Your task to perform on an android device: manage bookmarks in the chrome app Image 0: 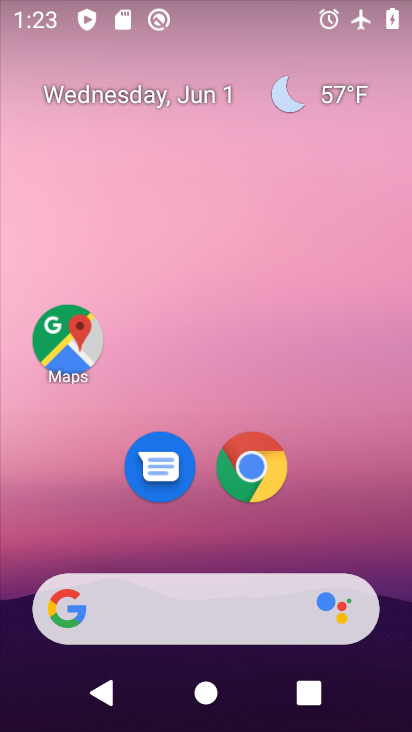
Step 0: drag from (338, 537) to (359, 179)
Your task to perform on an android device: manage bookmarks in the chrome app Image 1: 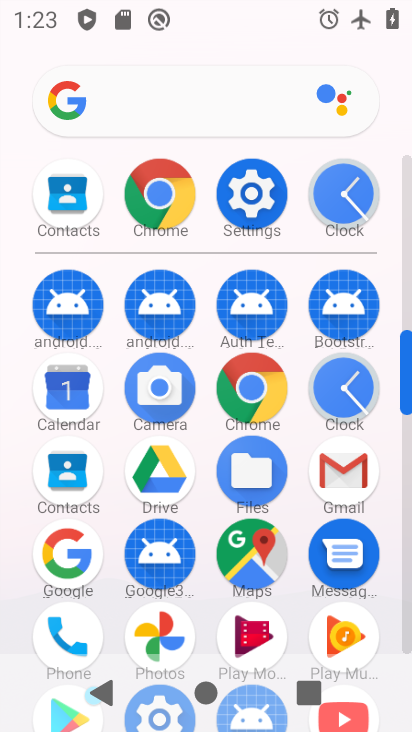
Step 1: click (256, 401)
Your task to perform on an android device: manage bookmarks in the chrome app Image 2: 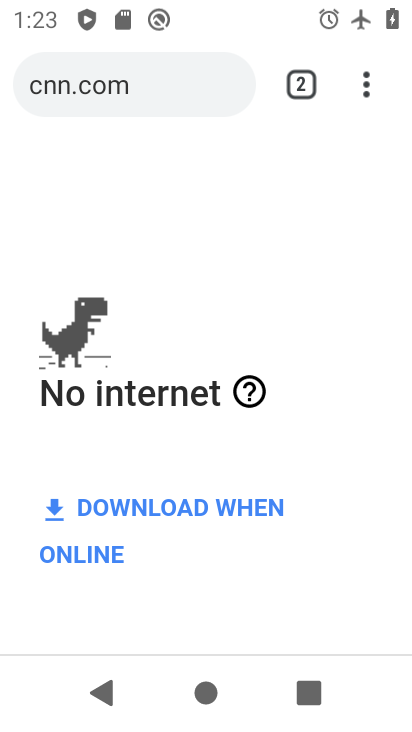
Step 2: click (362, 94)
Your task to perform on an android device: manage bookmarks in the chrome app Image 3: 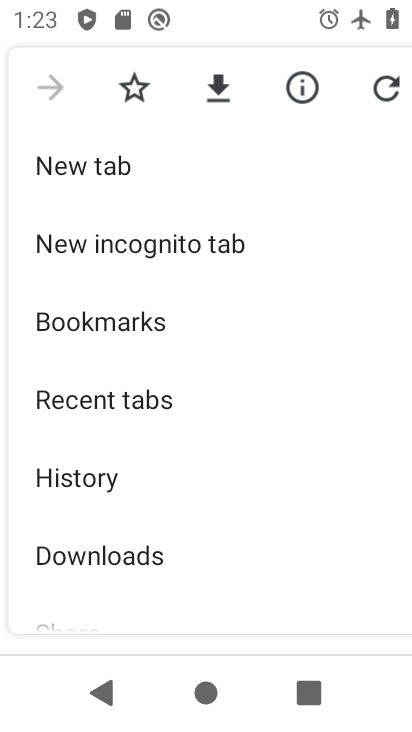
Step 3: click (140, 328)
Your task to perform on an android device: manage bookmarks in the chrome app Image 4: 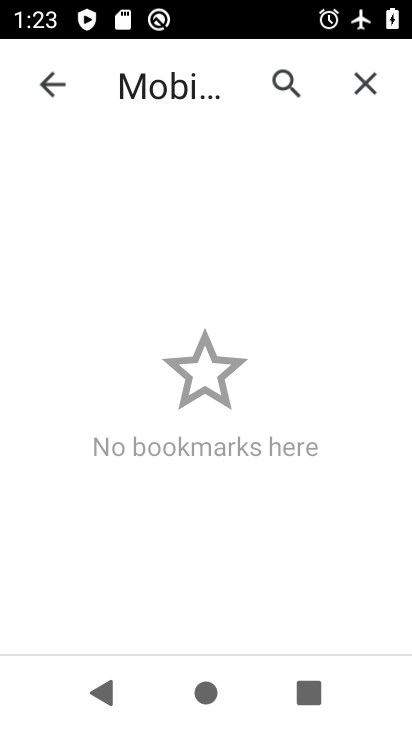
Step 4: task complete